Your task to perform on an android device: Go to sound settings Image 0: 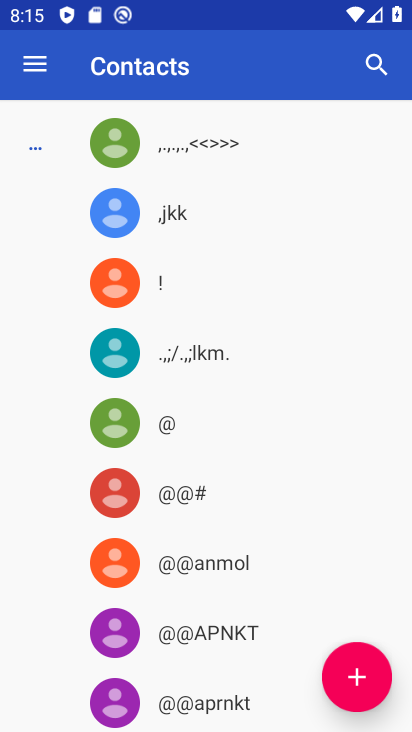
Step 0: press home button
Your task to perform on an android device: Go to sound settings Image 1: 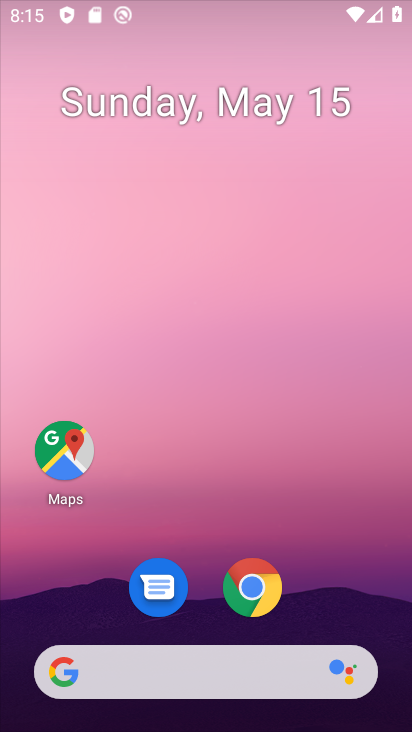
Step 1: drag from (378, 624) to (306, 74)
Your task to perform on an android device: Go to sound settings Image 2: 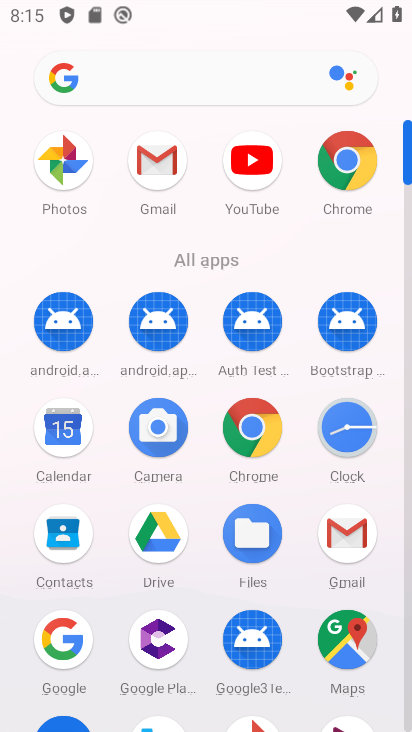
Step 2: drag from (216, 667) to (210, 135)
Your task to perform on an android device: Go to sound settings Image 3: 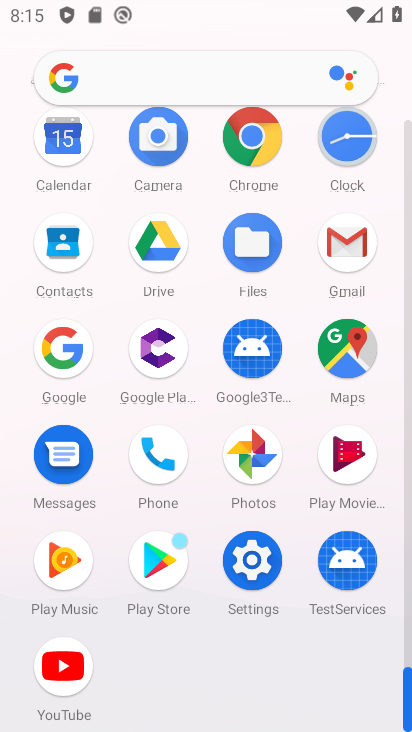
Step 3: click (258, 556)
Your task to perform on an android device: Go to sound settings Image 4: 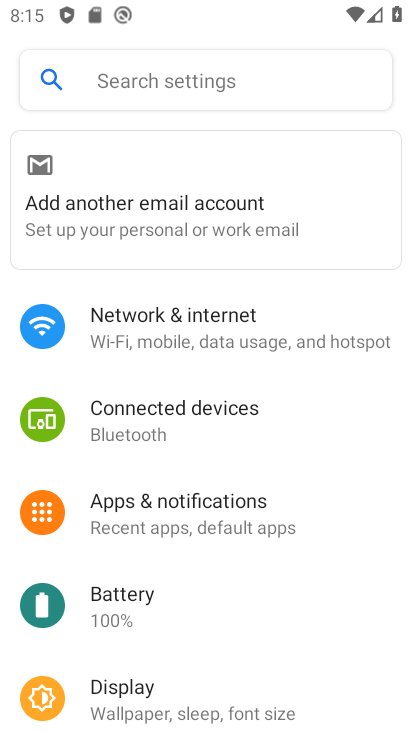
Step 4: drag from (161, 650) to (225, 117)
Your task to perform on an android device: Go to sound settings Image 5: 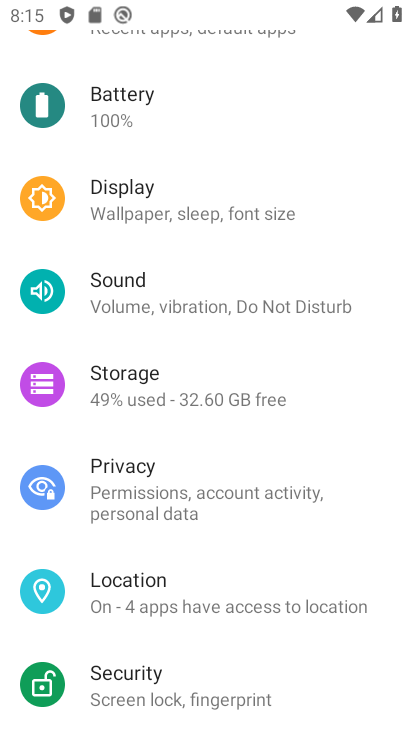
Step 5: drag from (164, 657) to (191, 204)
Your task to perform on an android device: Go to sound settings Image 6: 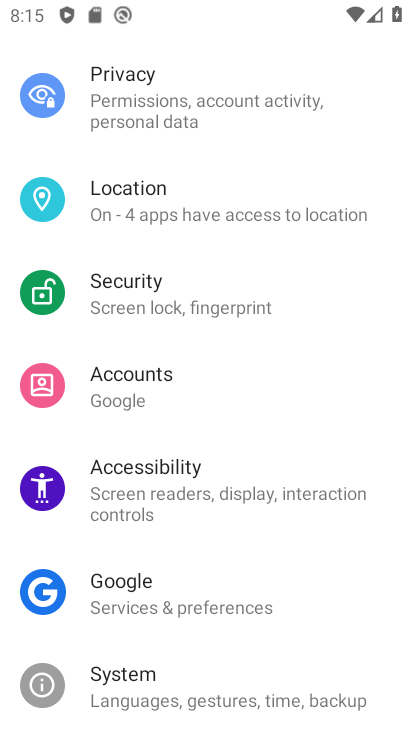
Step 6: drag from (167, 93) to (230, 573)
Your task to perform on an android device: Go to sound settings Image 7: 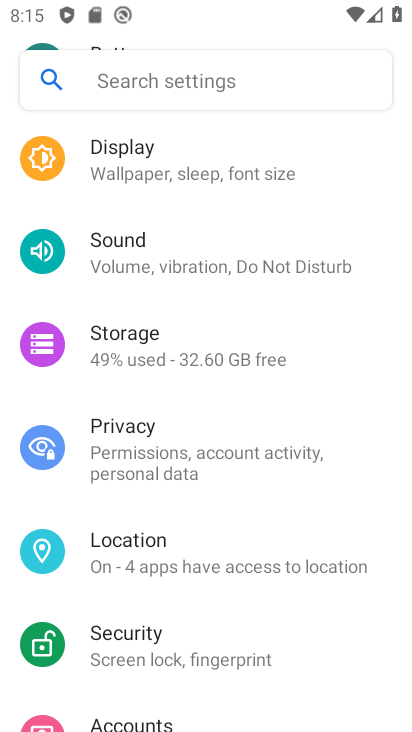
Step 7: click (168, 235)
Your task to perform on an android device: Go to sound settings Image 8: 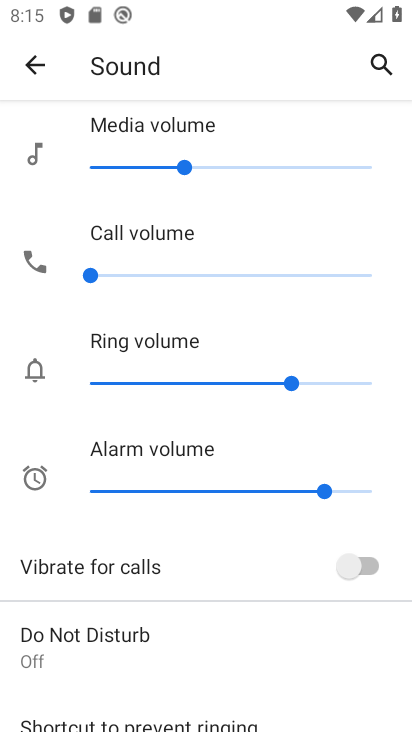
Step 8: task complete